Your task to perform on an android device: turn on the 24-hour format for clock Image 0: 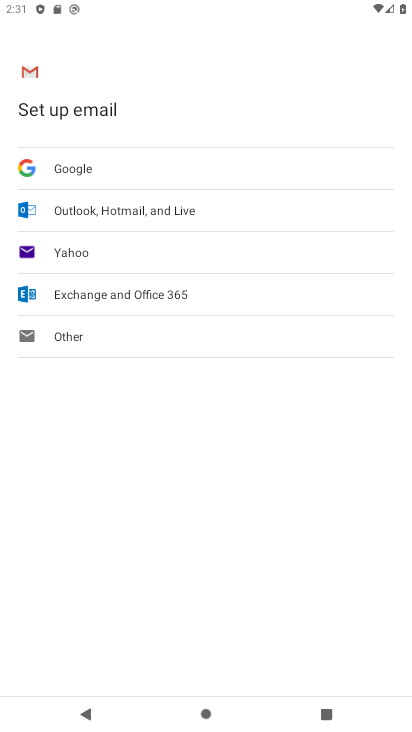
Step 0: press home button
Your task to perform on an android device: turn on the 24-hour format for clock Image 1: 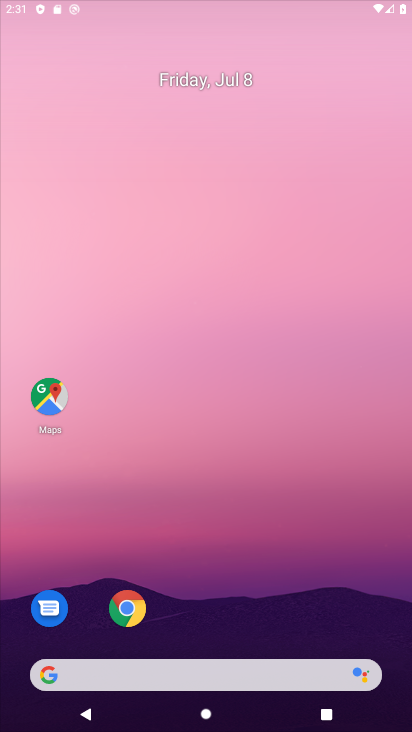
Step 1: drag from (223, 613) to (256, 116)
Your task to perform on an android device: turn on the 24-hour format for clock Image 2: 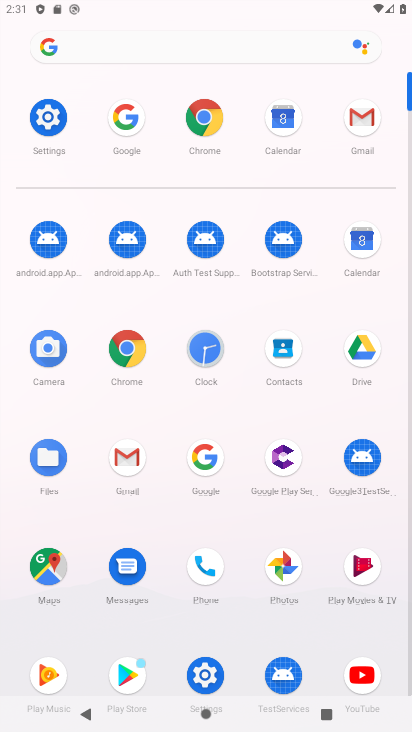
Step 2: click (207, 348)
Your task to perform on an android device: turn on the 24-hour format for clock Image 3: 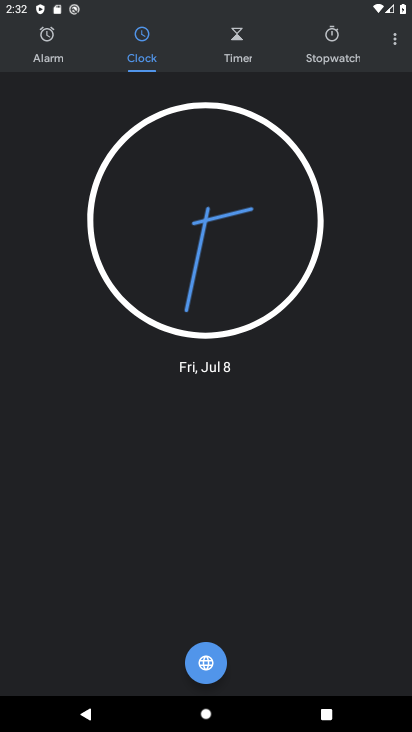
Step 3: click (387, 40)
Your task to perform on an android device: turn on the 24-hour format for clock Image 4: 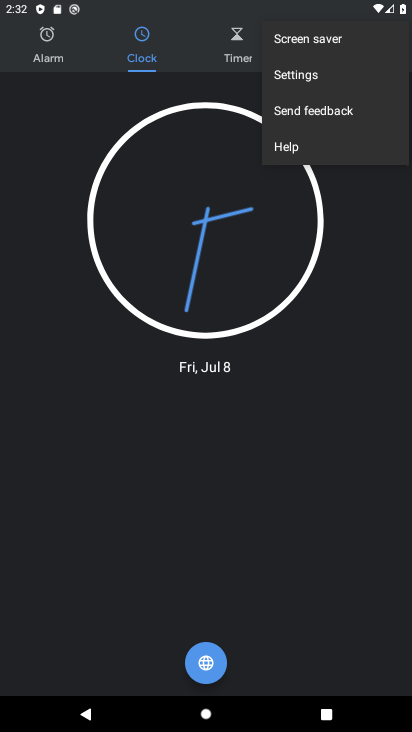
Step 4: click (283, 77)
Your task to perform on an android device: turn on the 24-hour format for clock Image 5: 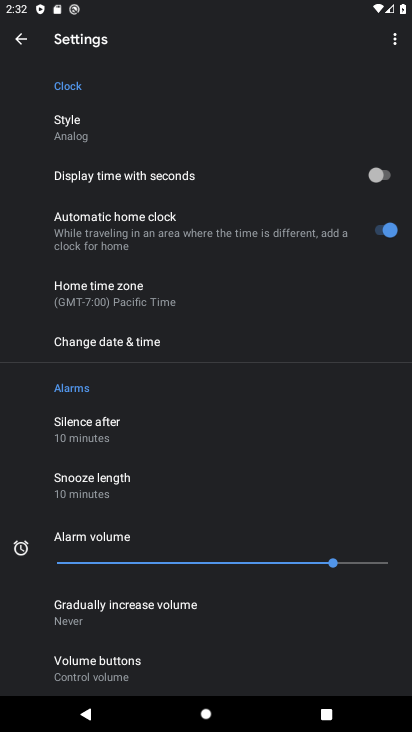
Step 5: click (122, 338)
Your task to perform on an android device: turn on the 24-hour format for clock Image 6: 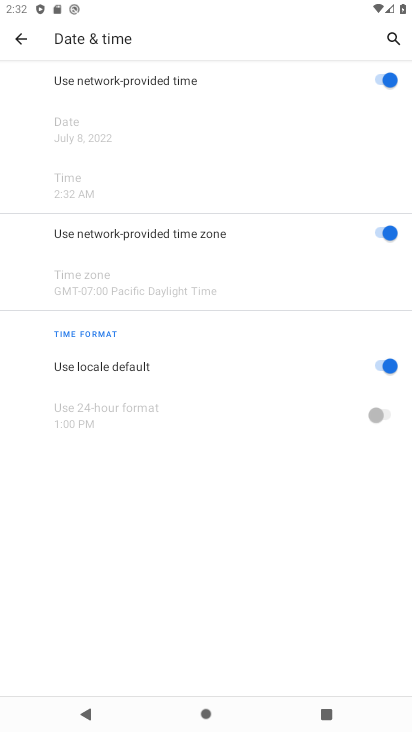
Step 6: click (391, 366)
Your task to perform on an android device: turn on the 24-hour format for clock Image 7: 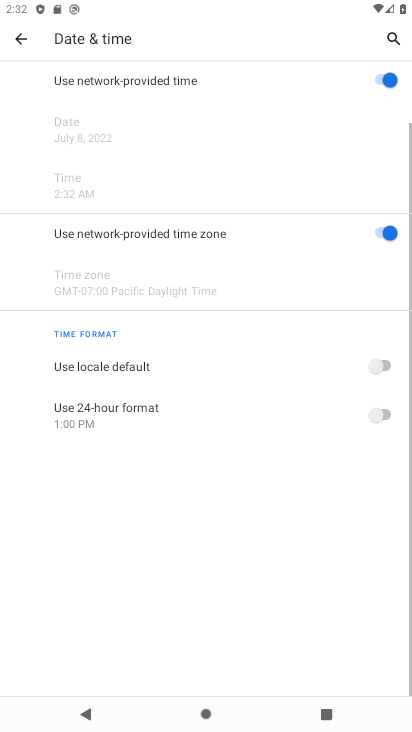
Step 7: click (379, 413)
Your task to perform on an android device: turn on the 24-hour format for clock Image 8: 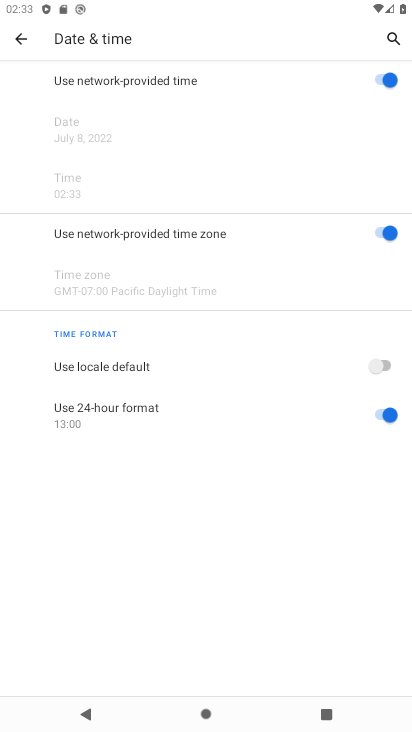
Step 8: task complete